Your task to perform on an android device: Search for bose soundsport free on costco, select the first entry, add it to the cart, then select checkout. Image 0: 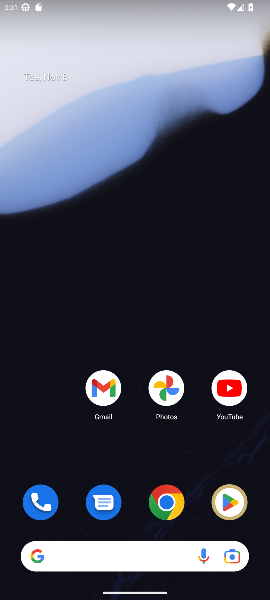
Step 0: drag from (81, 564) to (128, 191)
Your task to perform on an android device: Search for bose soundsport free on costco, select the first entry, add it to the cart, then select checkout. Image 1: 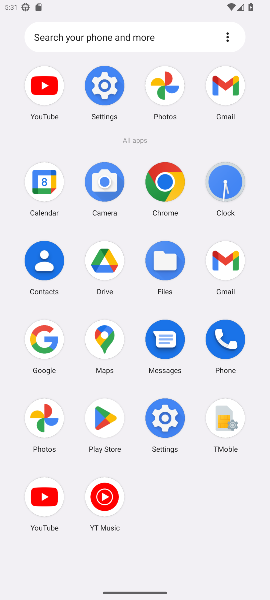
Step 1: click (45, 333)
Your task to perform on an android device: Search for bose soundsport free on costco, select the first entry, add it to the cart, then select checkout. Image 2: 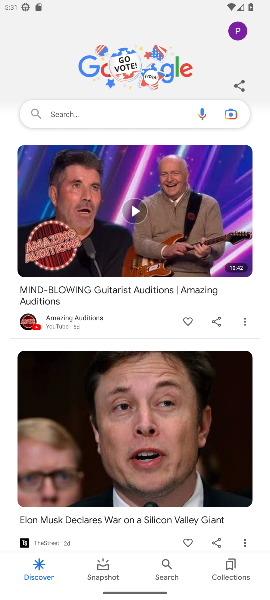
Step 2: click (99, 111)
Your task to perform on an android device: Search for bose soundsport free on costco, select the first entry, add it to the cart, then select checkout. Image 3: 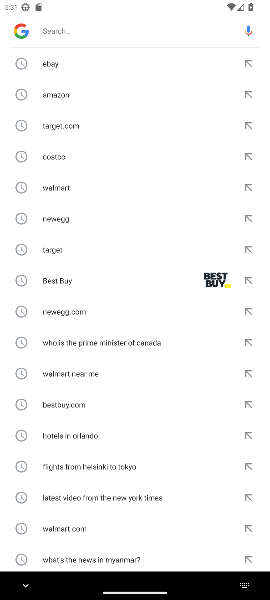
Step 3: click (84, 25)
Your task to perform on an android device: Search for bose soundsport free on costco, select the first entry, add it to the cart, then select checkout. Image 4: 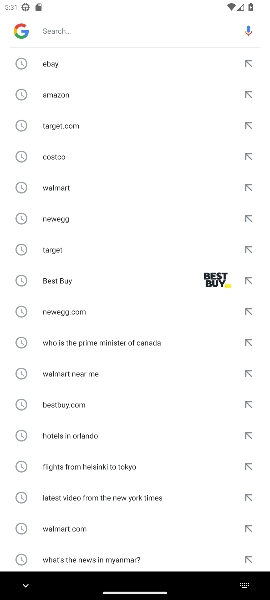
Step 4: type "costco "
Your task to perform on an android device: Search for bose soundsport free on costco, select the first entry, add it to the cart, then select checkout. Image 5: 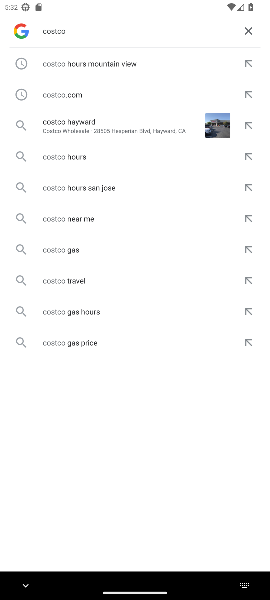
Step 5: click (75, 96)
Your task to perform on an android device: Search for bose soundsport free on costco, select the first entry, add it to the cart, then select checkout. Image 6: 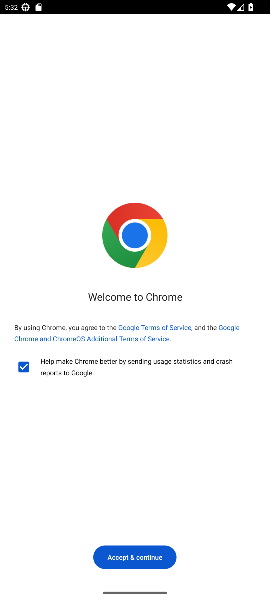
Step 6: click (151, 562)
Your task to perform on an android device: Search for bose soundsport free on costco, select the first entry, add it to the cart, then select checkout. Image 7: 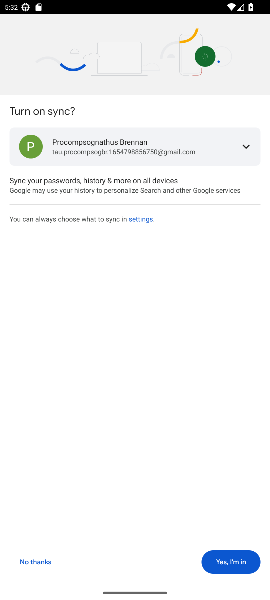
Step 7: click (45, 564)
Your task to perform on an android device: Search for bose soundsport free on costco, select the first entry, add it to the cart, then select checkout. Image 8: 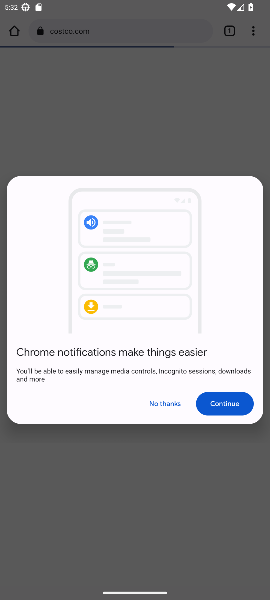
Step 8: click (171, 403)
Your task to perform on an android device: Search for bose soundsport free on costco, select the first entry, add it to the cart, then select checkout. Image 9: 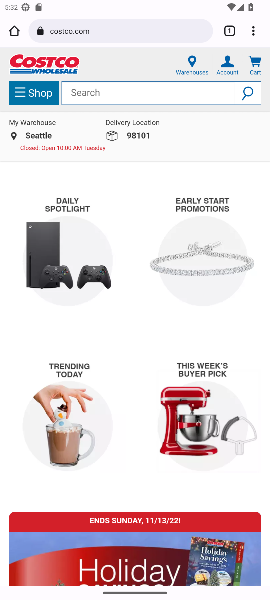
Step 9: click (114, 86)
Your task to perform on an android device: Search for bose soundsport free on costco, select the first entry, add it to the cart, then select checkout. Image 10: 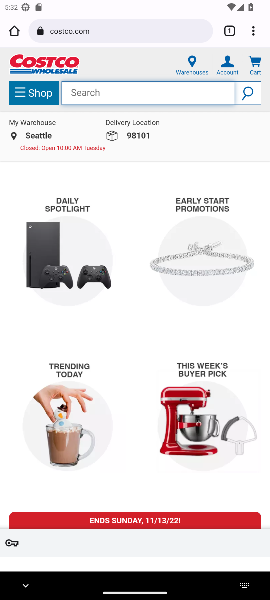
Step 10: type " bose soundsport free  "
Your task to perform on an android device: Search for bose soundsport free on costco, select the first entry, add it to the cart, then select checkout. Image 11: 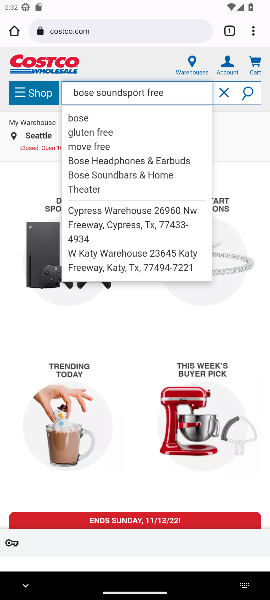
Step 11: click (245, 92)
Your task to perform on an android device: Search for bose soundsport free on costco, select the first entry, add it to the cart, then select checkout. Image 12: 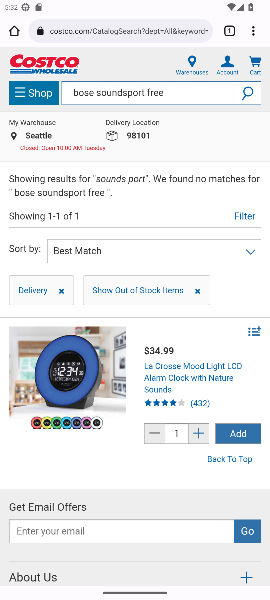
Step 12: drag from (99, 472) to (114, 291)
Your task to perform on an android device: Search for bose soundsport free on costco, select the first entry, add it to the cart, then select checkout. Image 13: 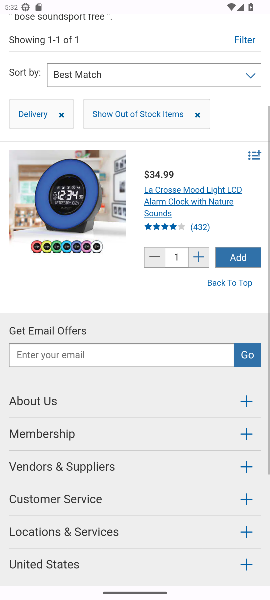
Step 13: click (113, 185)
Your task to perform on an android device: Search for bose soundsport free on costco, select the first entry, add it to the cart, then select checkout. Image 14: 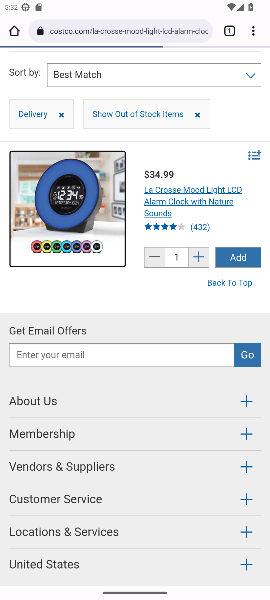
Step 14: drag from (128, 547) to (131, 306)
Your task to perform on an android device: Search for bose soundsport free on costco, select the first entry, add it to the cart, then select checkout. Image 15: 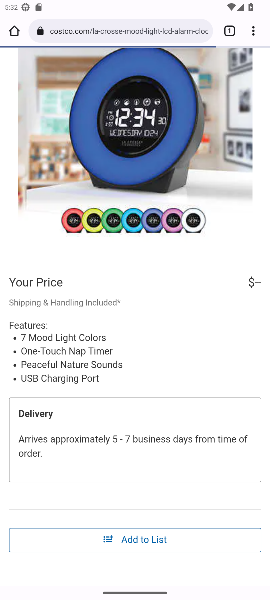
Step 15: drag from (98, 478) to (139, 203)
Your task to perform on an android device: Search for bose soundsport free on costco, select the first entry, add it to the cart, then select checkout. Image 16: 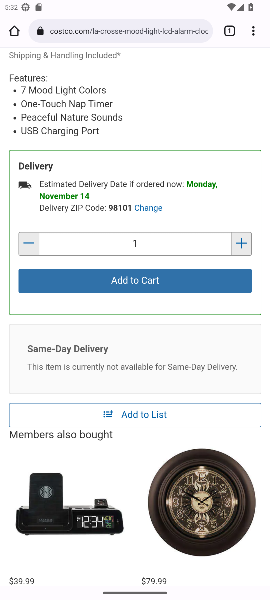
Step 16: drag from (106, 497) to (126, 282)
Your task to perform on an android device: Search for bose soundsport free on costco, select the first entry, add it to the cart, then select checkout. Image 17: 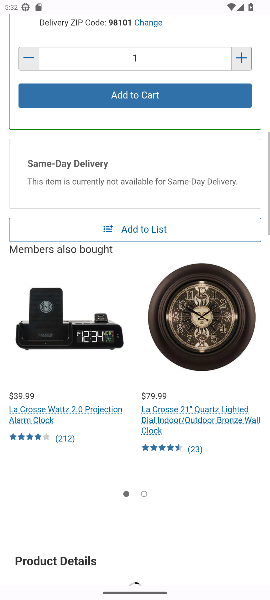
Step 17: drag from (134, 230) to (141, 189)
Your task to perform on an android device: Search for bose soundsport free on costco, select the first entry, add it to the cart, then select checkout. Image 18: 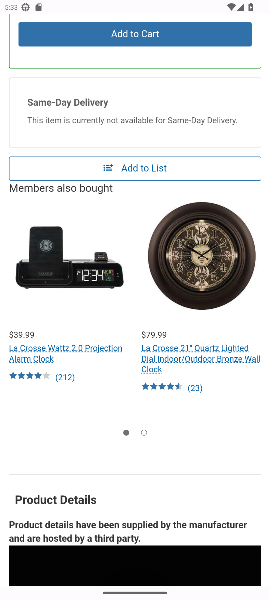
Step 18: click (59, 346)
Your task to perform on an android device: Search for bose soundsport free on costco, select the first entry, add it to the cart, then select checkout. Image 19: 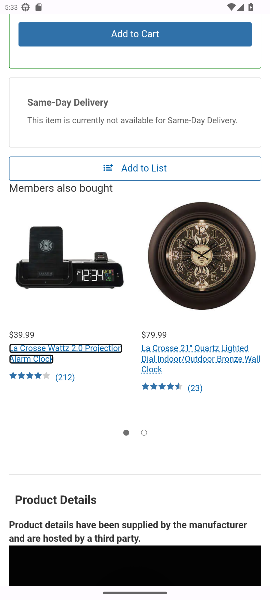
Step 19: drag from (80, 462) to (136, 206)
Your task to perform on an android device: Search for bose soundsport free on costco, select the first entry, add it to the cart, then select checkout. Image 20: 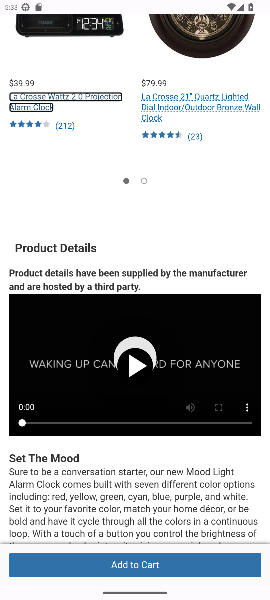
Step 20: drag from (134, 182) to (111, 487)
Your task to perform on an android device: Search for bose soundsport free on costco, select the first entry, add it to the cart, then select checkout. Image 21: 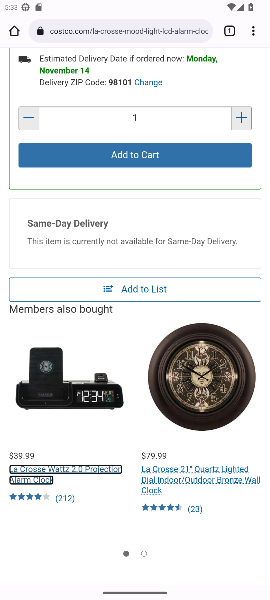
Step 21: click (187, 475)
Your task to perform on an android device: Search for bose soundsport free on costco, select the first entry, add it to the cart, then select checkout. Image 22: 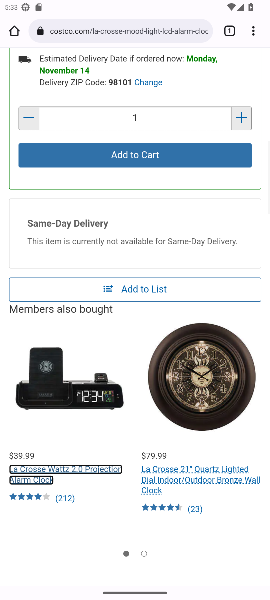
Step 22: drag from (141, 220) to (155, 483)
Your task to perform on an android device: Search for bose soundsport free on costco, select the first entry, add it to the cart, then select checkout. Image 23: 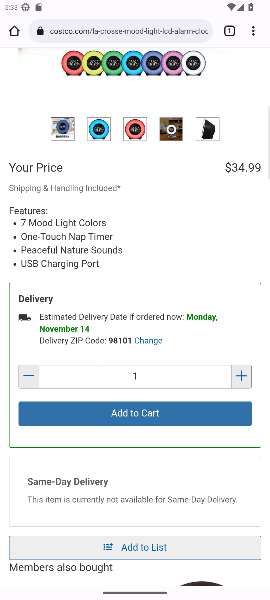
Step 23: click (157, 418)
Your task to perform on an android device: Search for bose soundsport free on costco, select the first entry, add it to the cart, then select checkout. Image 24: 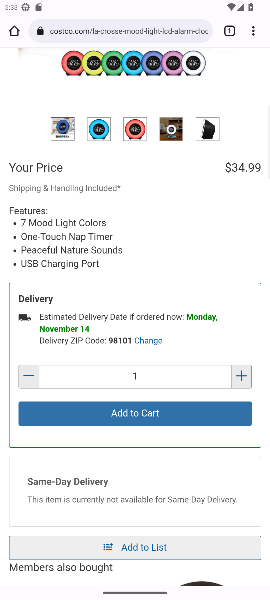
Step 24: click (157, 418)
Your task to perform on an android device: Search for bose soundsport free on costco, select the first entry, add it to the cart, then select checkout. Image 25: 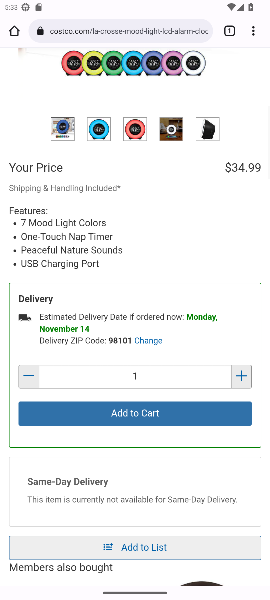
Step 25: click (157, 418)
Your task to perform on an android device: Search for bose soundsport free on costco, select the first entry, add it to the cart, then select checkout. Image 26: 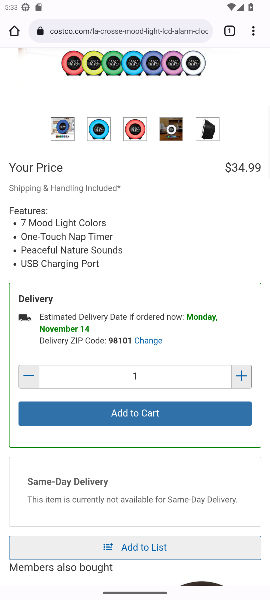
Step 26: click (157, 418)
Your task to perform on an android device: Search for bose soundsport free on costco, select the first entry, add it to the cart, then select checkout. Image 27: 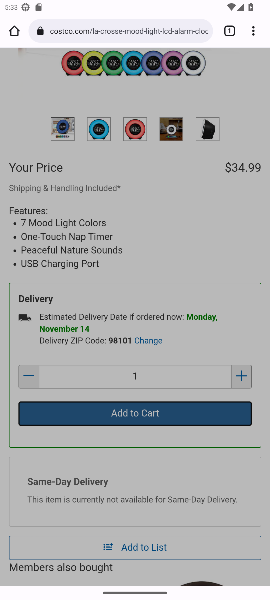
Step 27: click (125, 409)
Your task to perform on an android device: Search for bose soundsport free on costco, select the first entry, add it to the cart, then select checkout. Image 28: 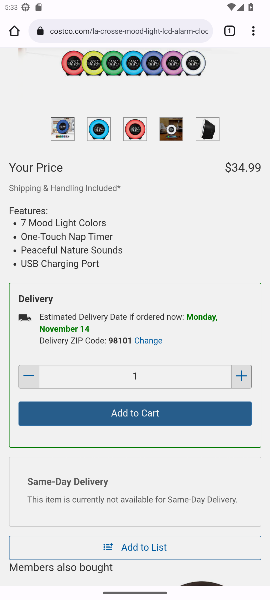
Step 28: click (132, 413)
Your task to perform on an android device: Search for bose soundsport free on costco, select the first entry, add it to the cart, then select checkout. Image 29: 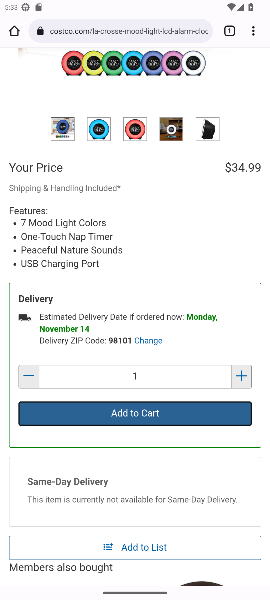
Step 29: task complete